Your task to perform on an android device: Check the news Image 0: 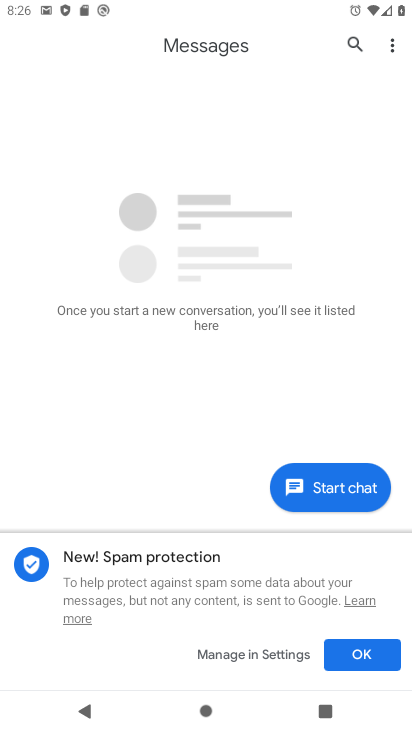
Step 0: press home button
Your task to perform on an android device: Check the news Image 1: 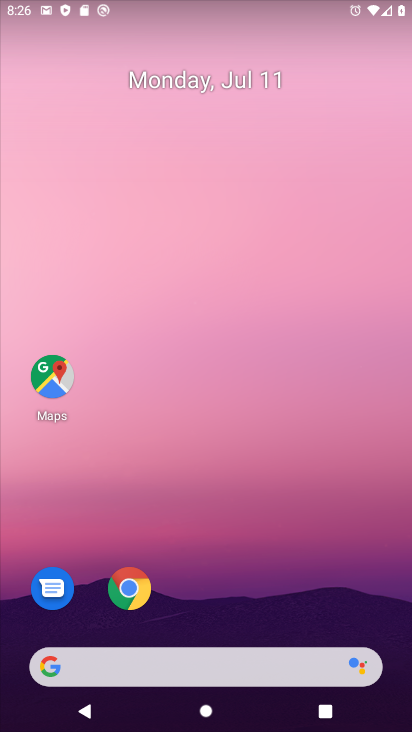
Step 1: click (172, 665)
Your task to perform on an android device: Check the news Image 2: 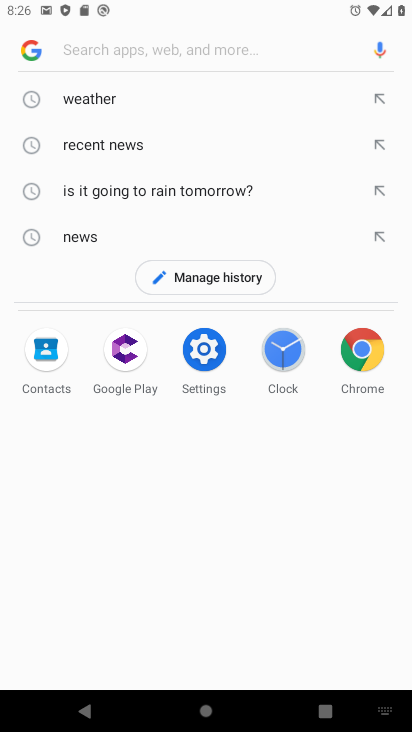
Step 2: click (85, 243)
Your task to perform on an android device: Check the news Image 3: 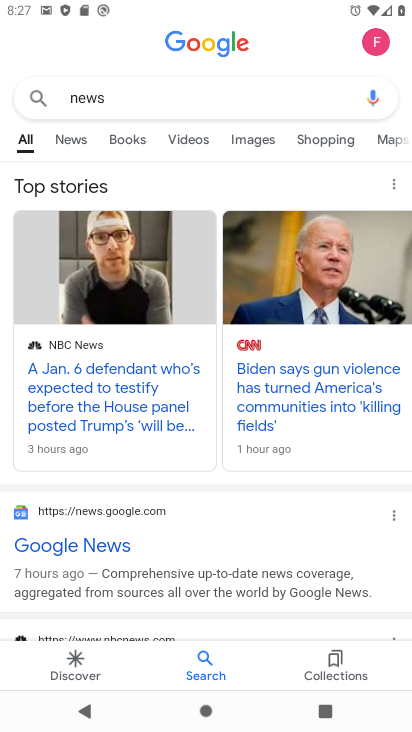
Step 3: task complete